Your task to perform on an android device: delete the emails in spam in the gmail app Image 0: 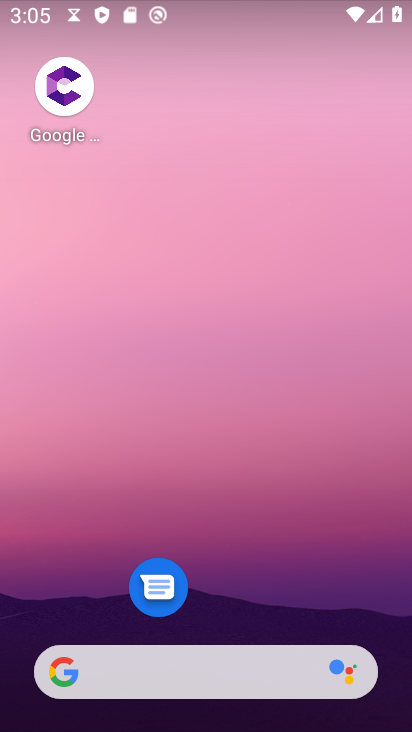
Step 0: drag from (258, 282) to (255, 208)
Your task to perform on an android device: delete the emails in spam in the gmail app Image 1: 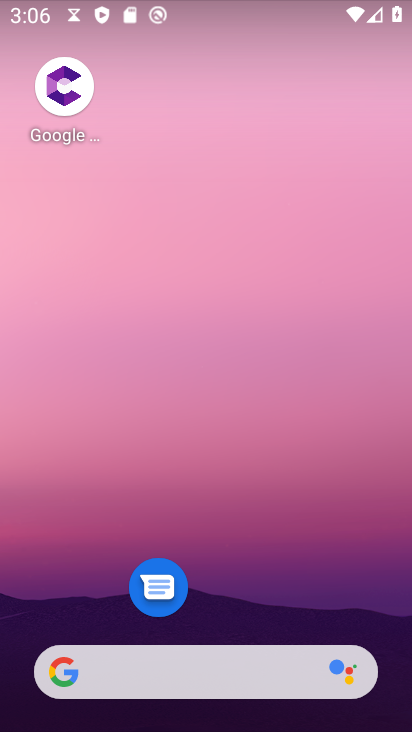
Step 1: drag from (233, 705) to (191, 38)
Your task to perform on an android device: delete the emails in spam in the gmail app Image 2: 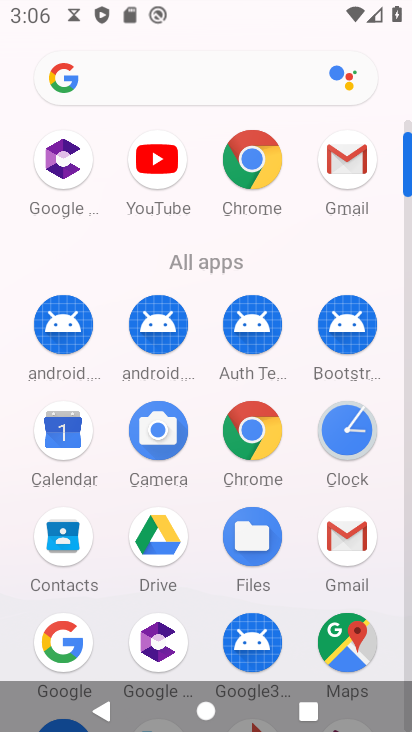
Step 2: click (334, 545)
Your task to perform on an android device: delete the emails in spam in the gmail app Image 3: 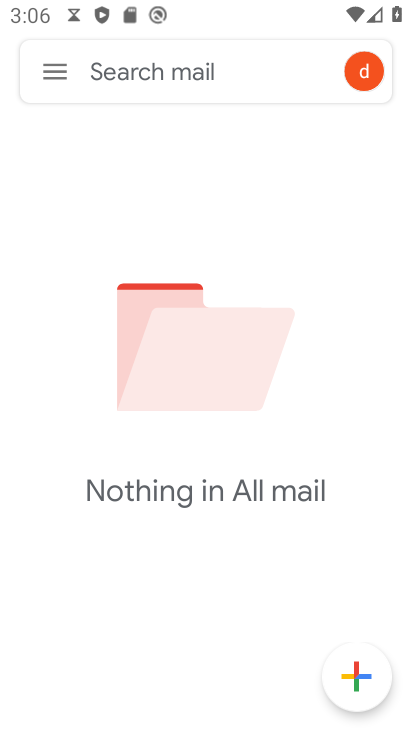
Step 3: click (56, 61)
Your task to perform on an android device: delete the emails in spam in the gmail app Image 4: 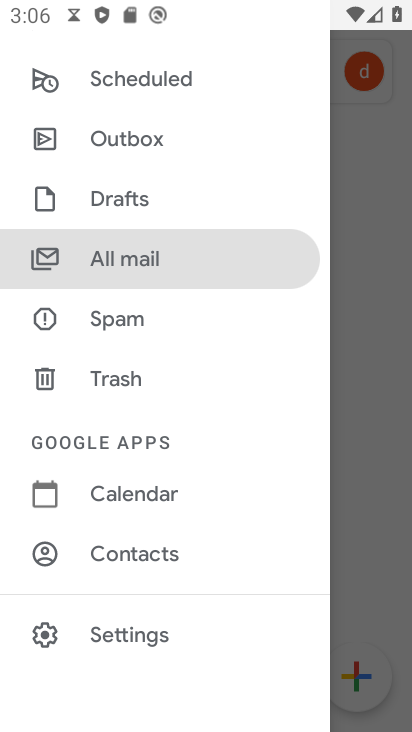
Step 4: click (120, 269)
Your task to perform on an android device: delete the emails in spam in the gmail app Image 5: 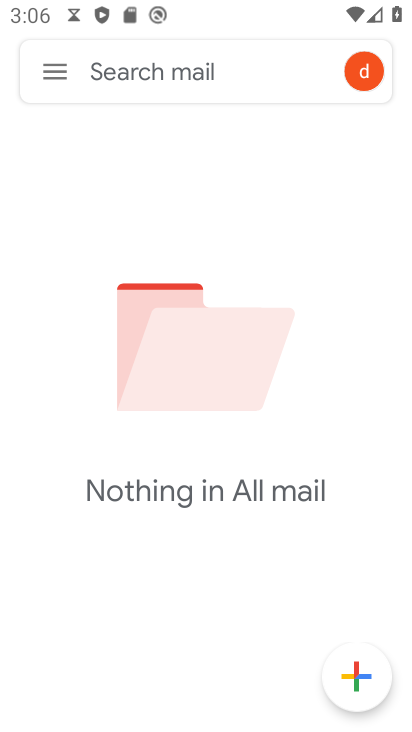
Step 5: click (46, 68)
Your task to perform on an android device: delete the emails in spam in the gmail app Image 6: 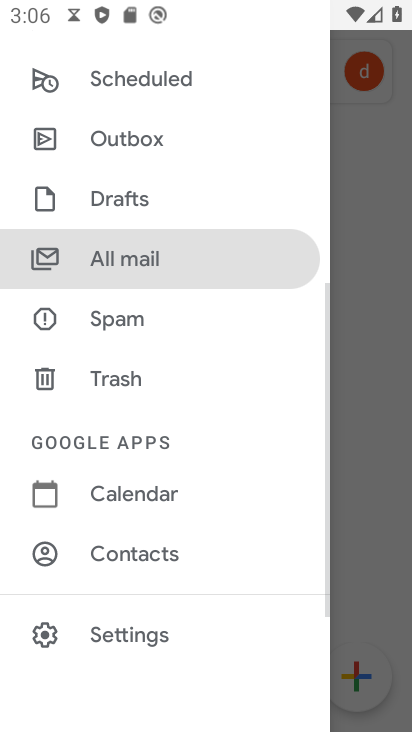
Step 6: click (108, 317)
Your task to perform on an android device: delete the emails in spam in the gmail app Image 7: 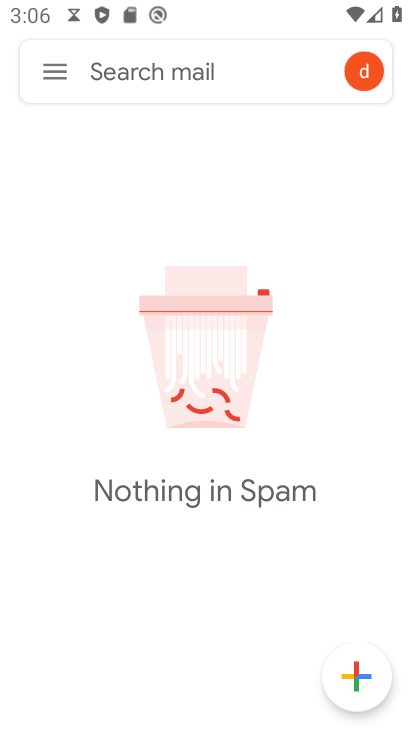
Step 7: task complete